Your task to perform on an android device: snooze an email in the gmail app Image 0: 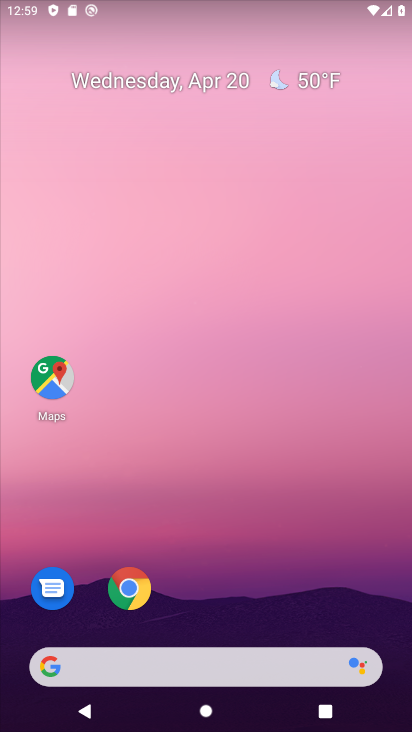
Step 0: drag from (182, 642) to (243, 306)
Your task to perform on an android device: snooze an email in the gmail app Image 1: 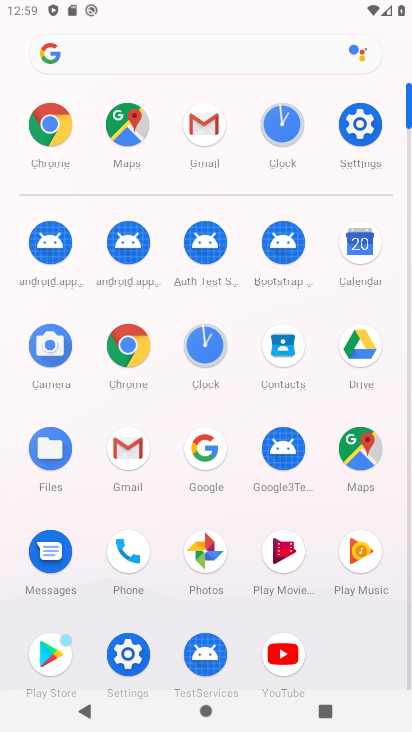
Step 1: click (193, 130)
Your task to perform on an android device: snooze an email in the gmail app Image 2: 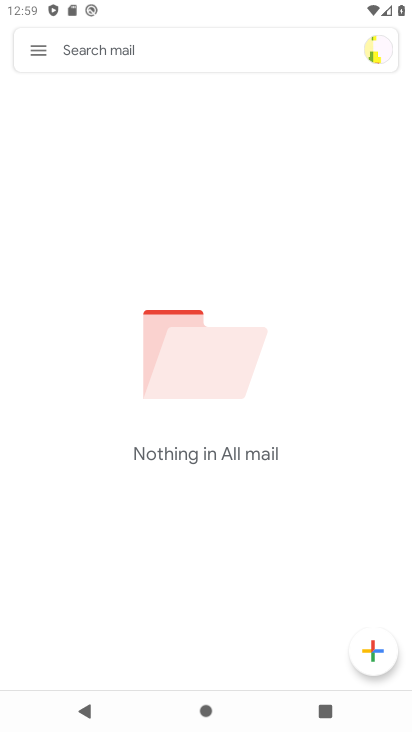
Step 2: click (40, 53)
Your task to perform on an android device: snooze an email in the gmail app Image 3: 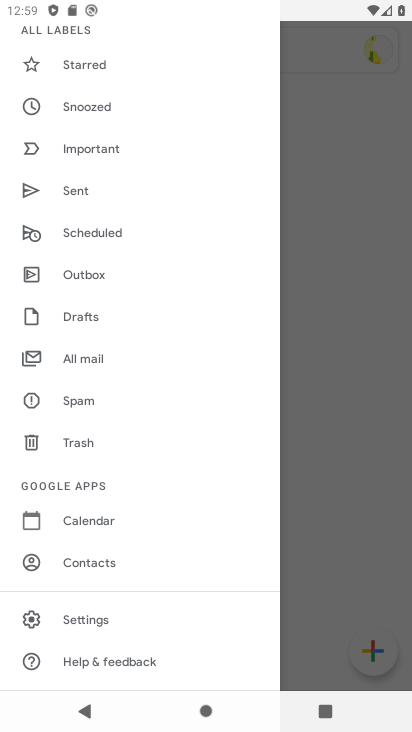
Step 3: click (90, 110)
Your task to perform on an android device: snooze an email in the gmail app Image 4: 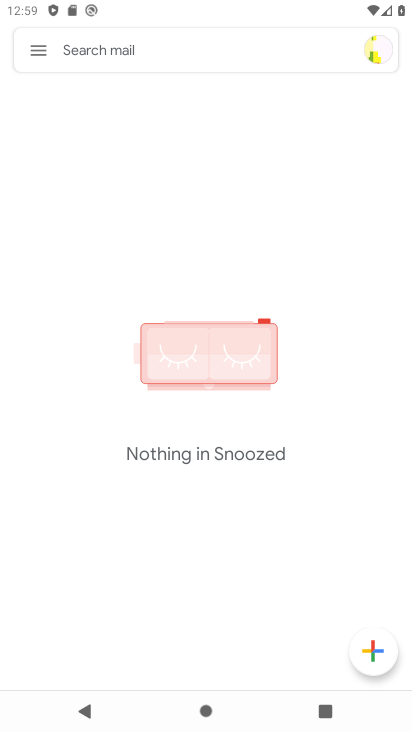
Step 4: click (38, 44)
Your task to perform on an android device: snooze an email in the gmail app Image 5: 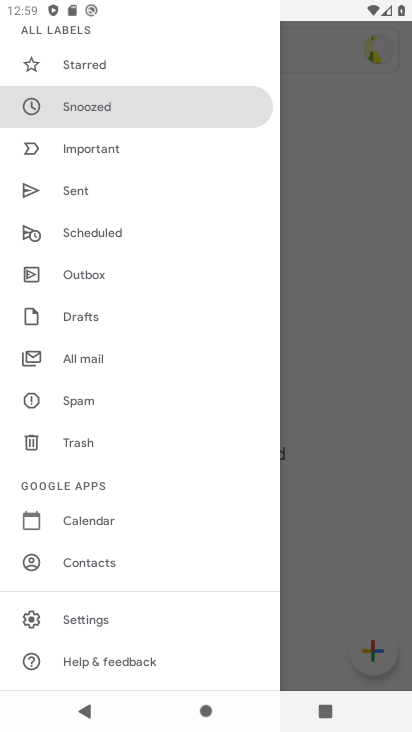
Step 5: click (76, 363)
Your task to perform on an android device: snooze an email in the gmail app Image 6: 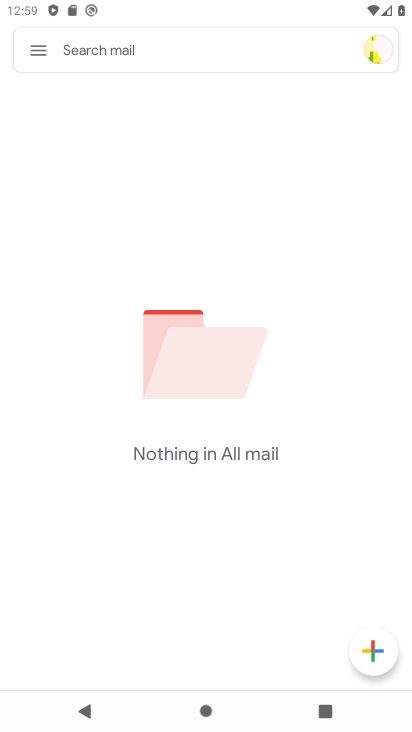
Step 6: task complete